Your task to perform on an android device: open app "Google Keep" Image 0: 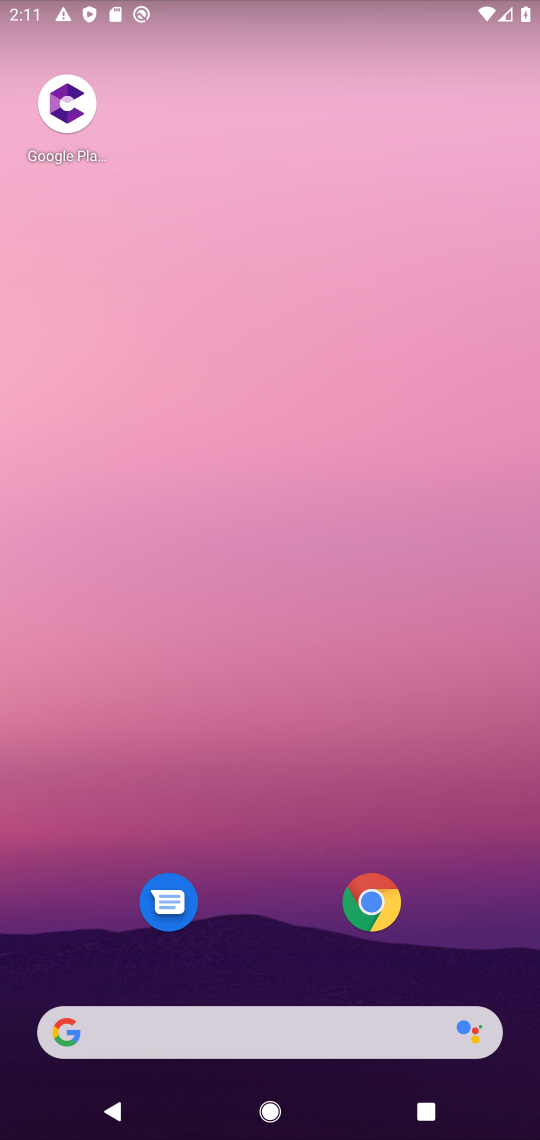
Step 0: drag from (496, 932) to (325, 257)
Your task to perform on an android device: open app "Google Keep" Image 1: 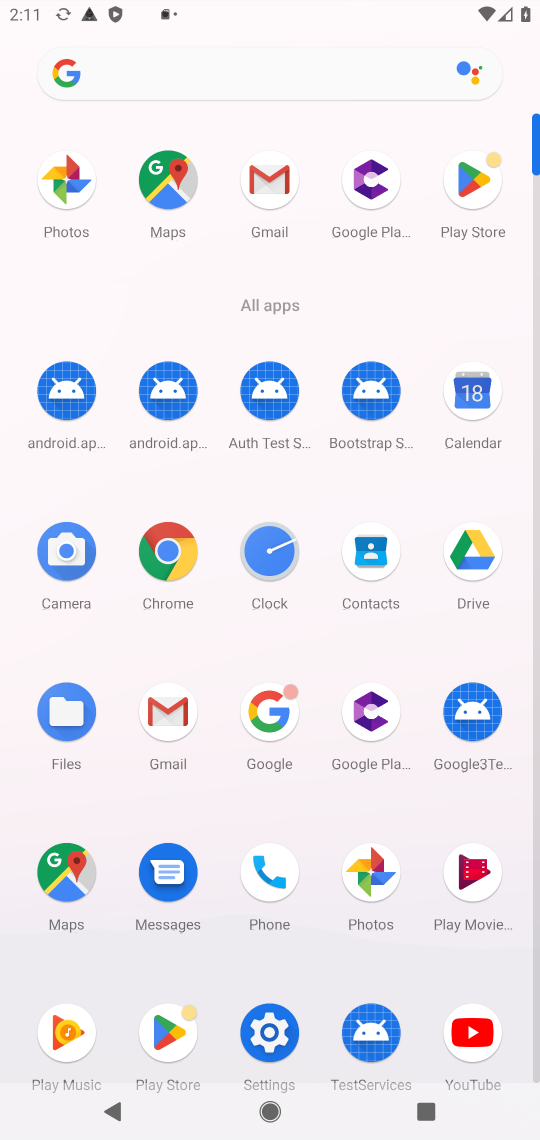
Step 1: click (489, 176)
Your task to perform on an android device: open app "Google Keep" Image 2: 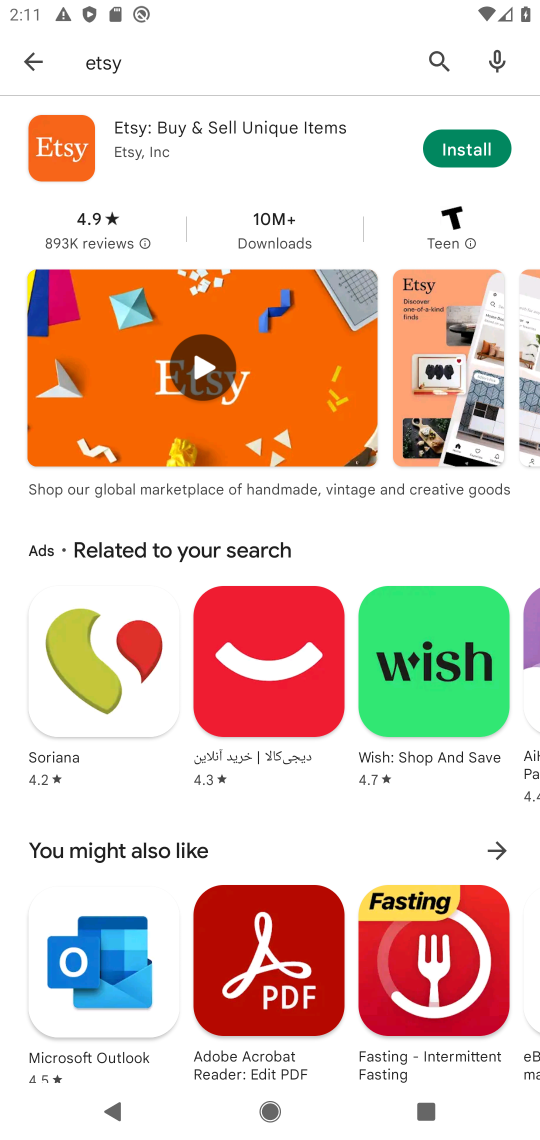
Step 2: click (437, 64)
Your task to perform on an android device: open app "Google Keep" Image 3: 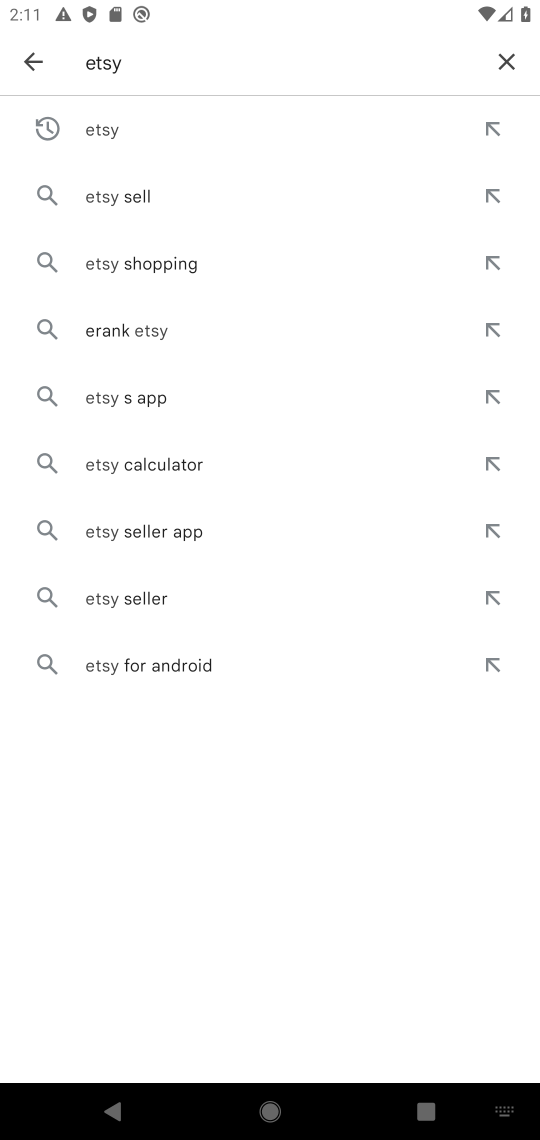
Step 3: click (516, 67)
Your task to perform on an android device: open app "Google Keep" Image 4: 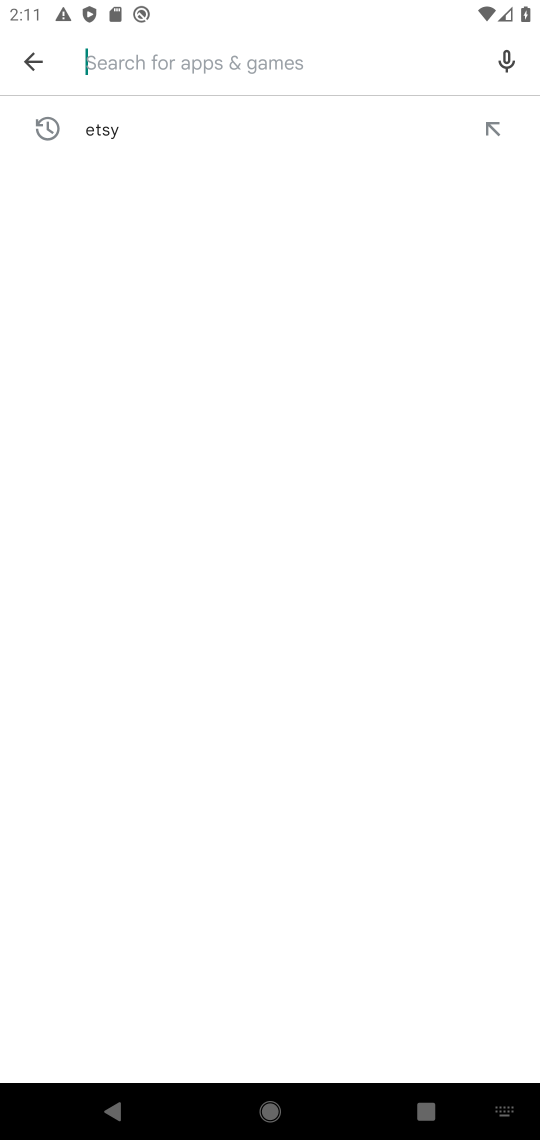
Step 4: type "google keep"
Your task to perform on an android device: open app "Google Keep" Image 5: 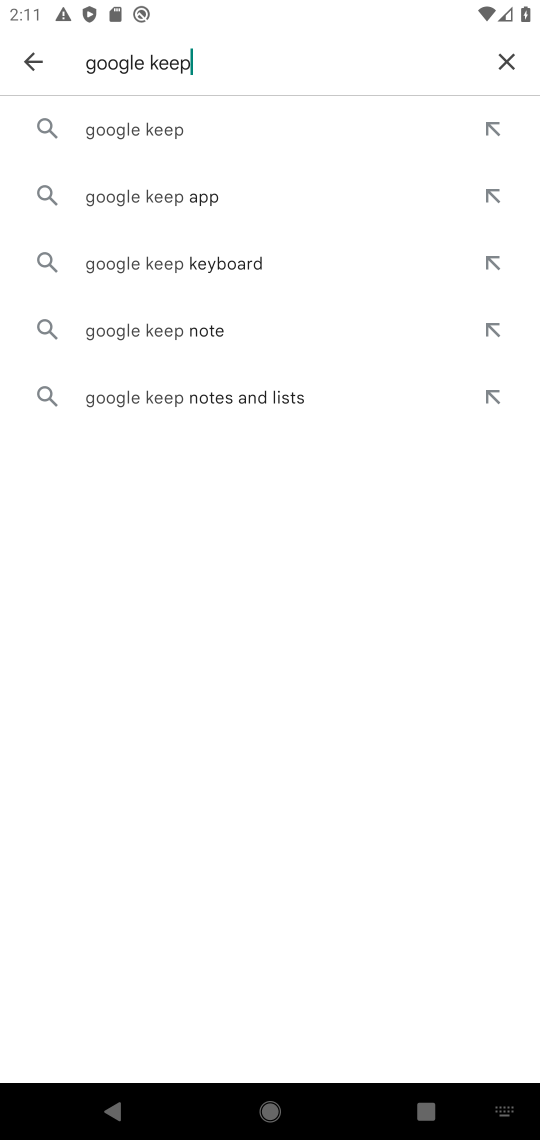
Step 5: click (258, 113)
Your task to perform on an android device: open app "Google Keep" Image 6: 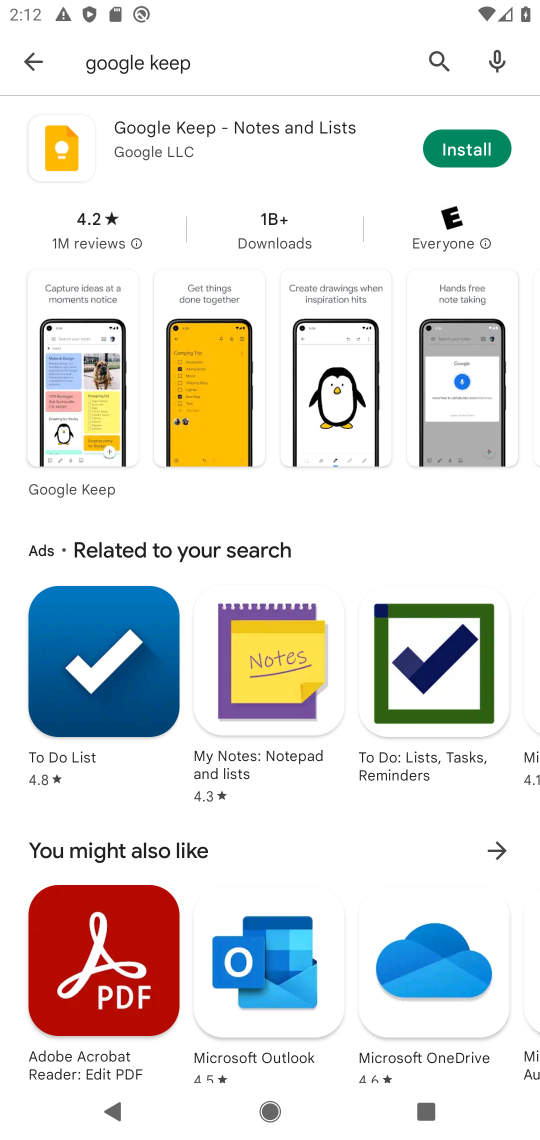
Step 6: task complete